Your task to perform on an android device: change your default location settings in chrome Image 0: 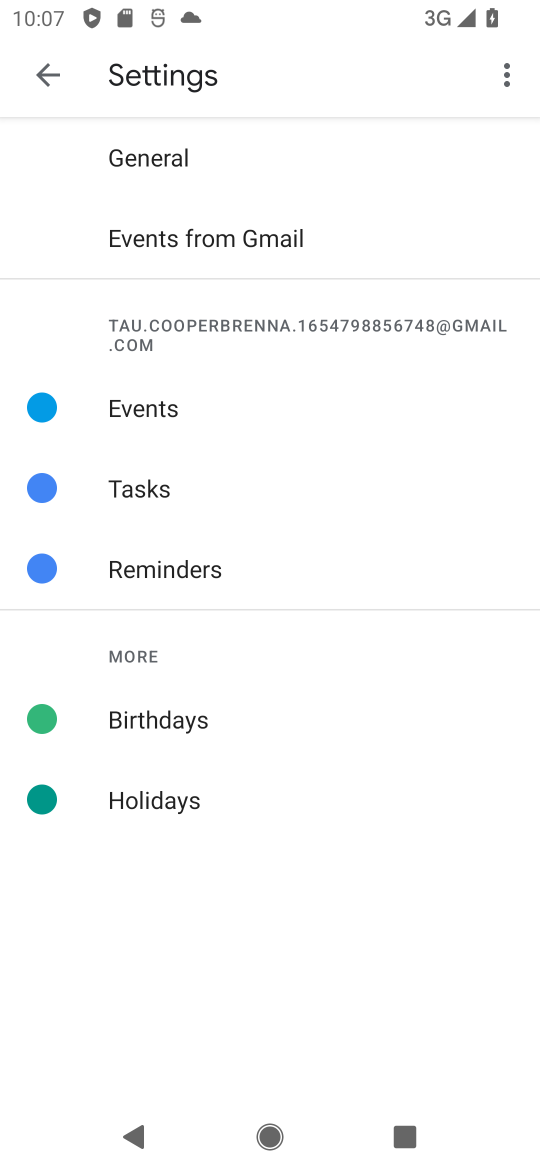
Step 0: press home button
Your task to perform on an android device: change your default location settings in chrome Image 1: 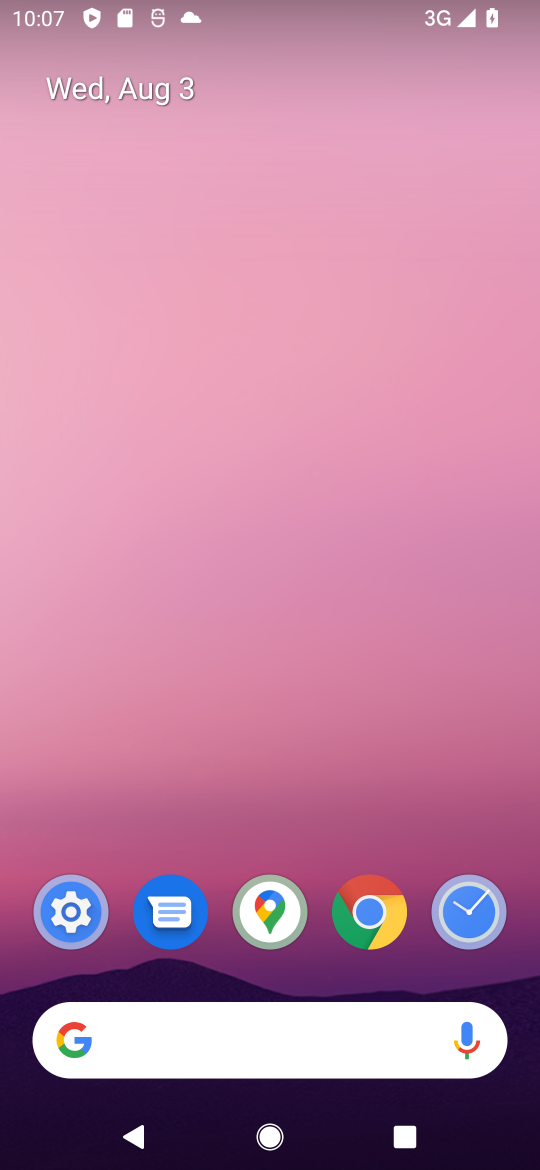
Step 1: drag from (323, 550) to (393, 36)
Your task to perform on an android device: change your default location settings in chrome Image 2: 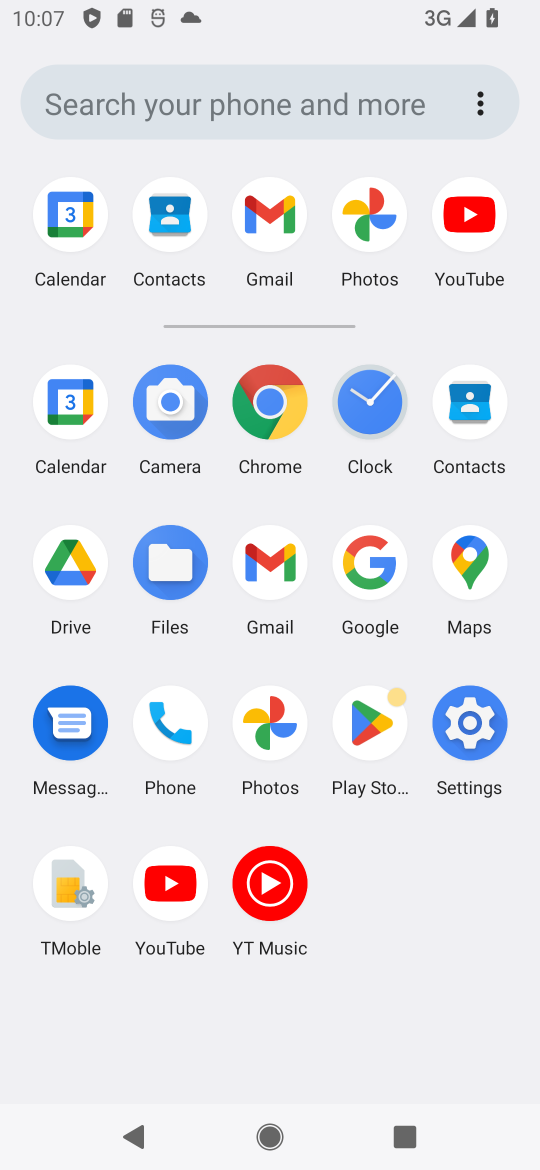
Step 2: click (262, 409)
Your task to perform on an android device: change your default location settings in chrome Image 3: 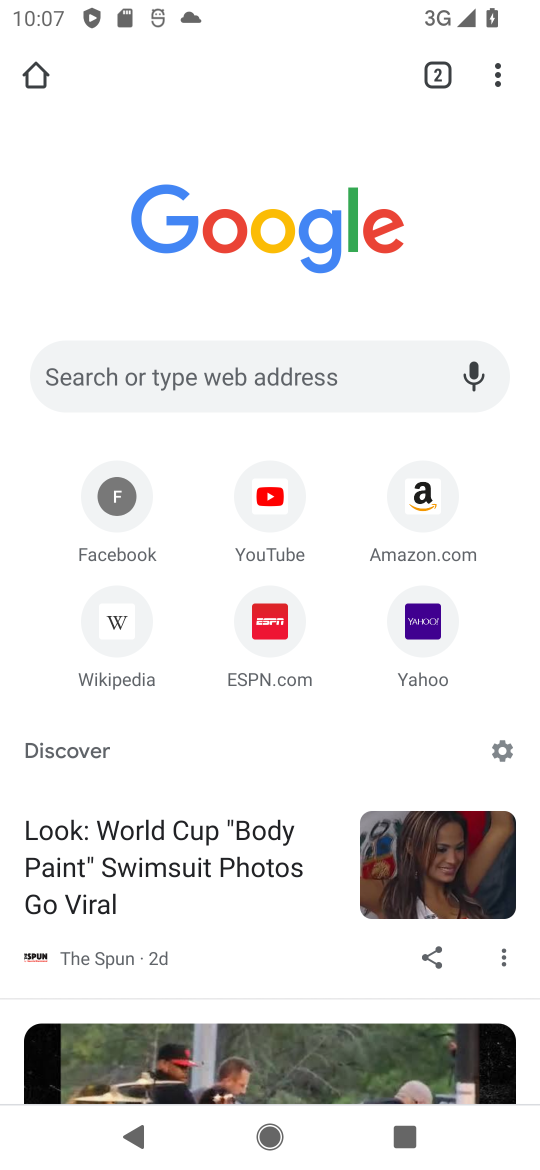
Step 3: drag from (517, 79) to (238, 777)
Your task to perform on an android device: change your default location settings in chrome Image 4: 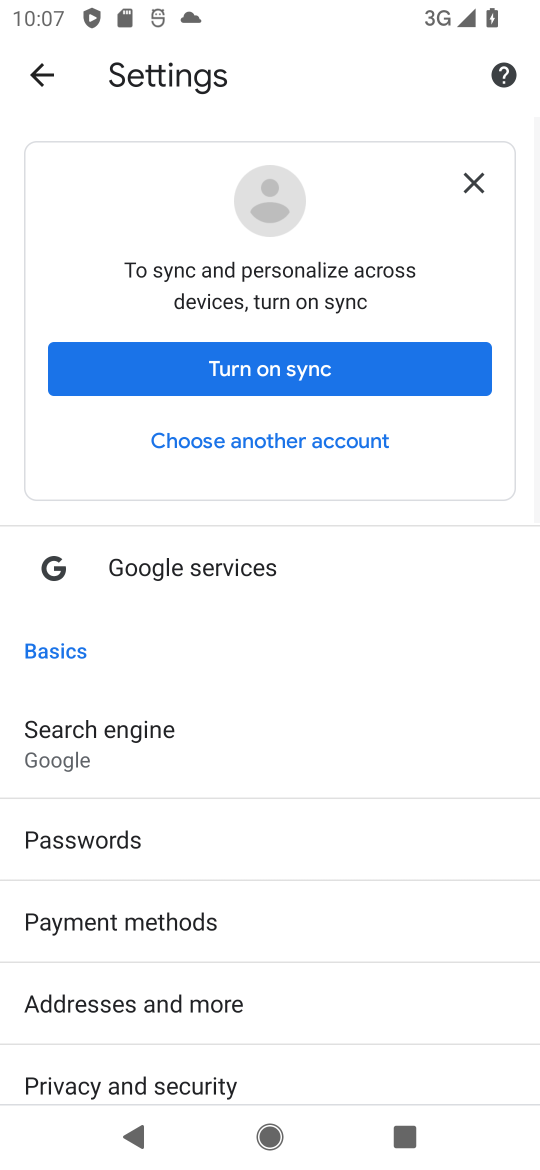
Step 4: drag from (170, 874) to (283, 242)
Your task to perform on an android device: change your default location settings in chrome Image 5: 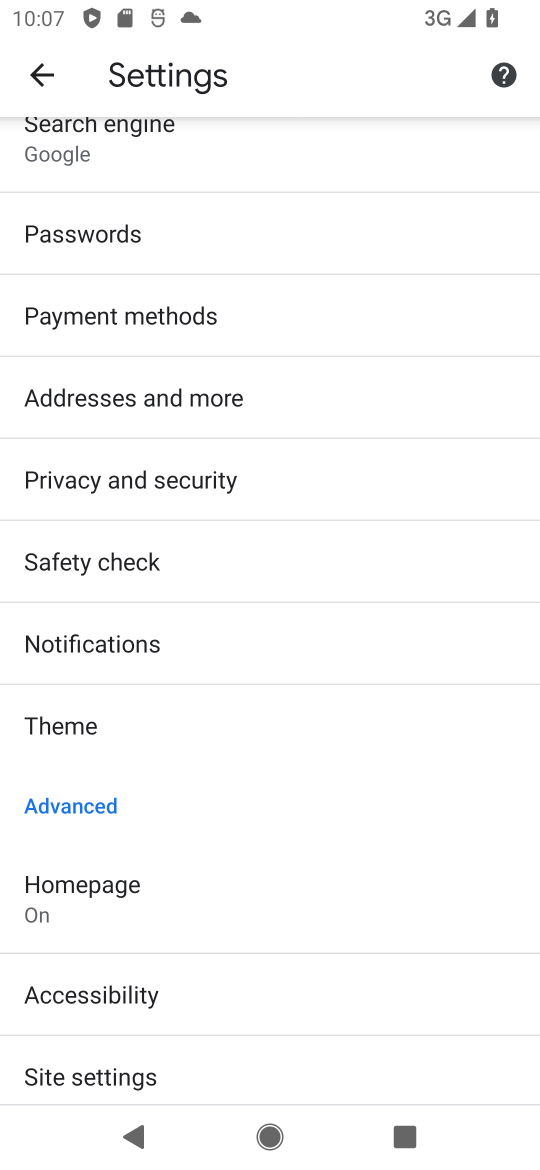
Step 5: drag from (122, 941) to (241, 252)
Your task to perform on an android device: change your default location settings in chrome Image 6: 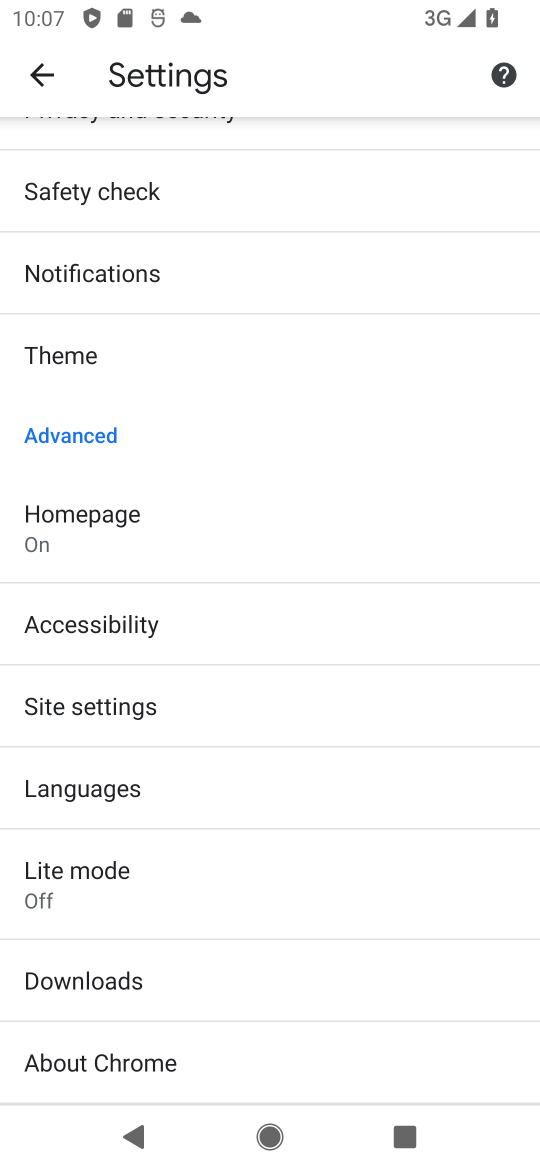
Step 6: drag from (121, 913) to (196, 344)
Your task to perform on an android device: change your default location settings in chrome Image 7: 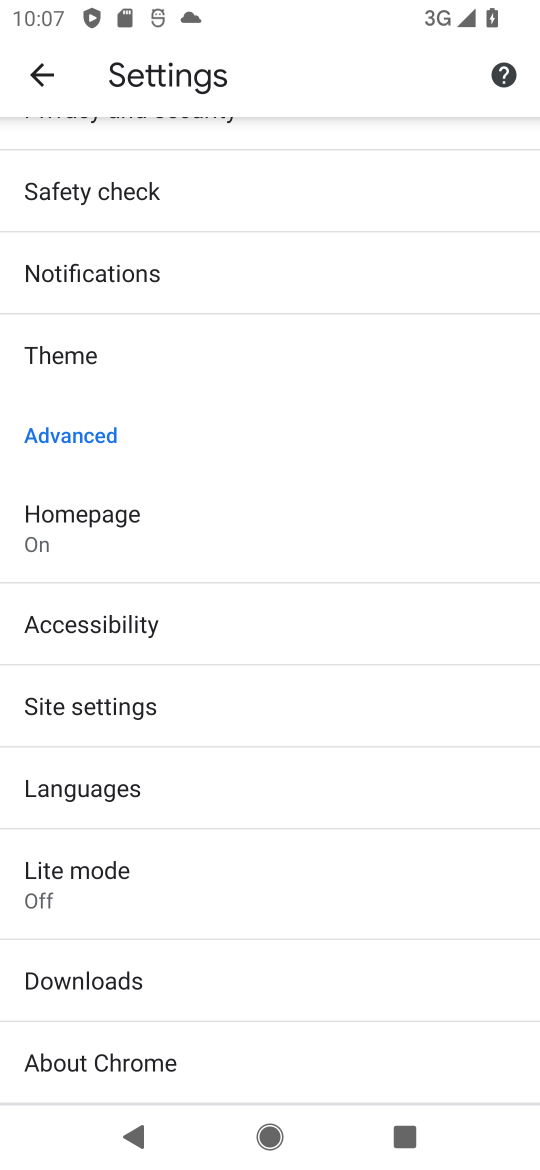
Step 7: drag from (156, 958) to (261, 389)
Your task to perform on an android device: change your default location settings in chrome Image 8: 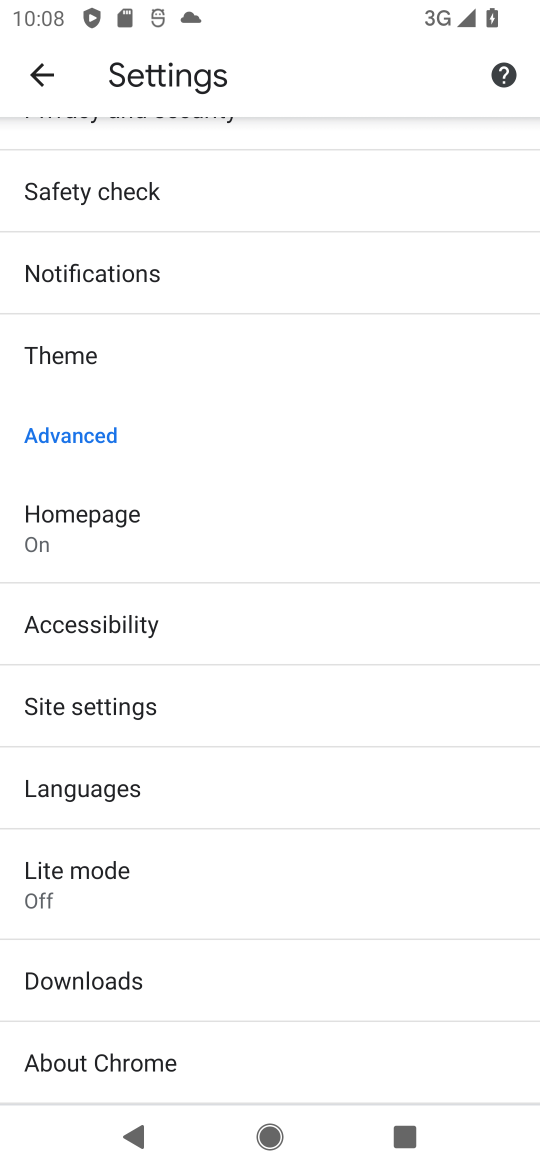
Step 8: drag from (231, 913) to (355, 366)
Your task to perform on an android device: change your default location settings in chrome Image 9: 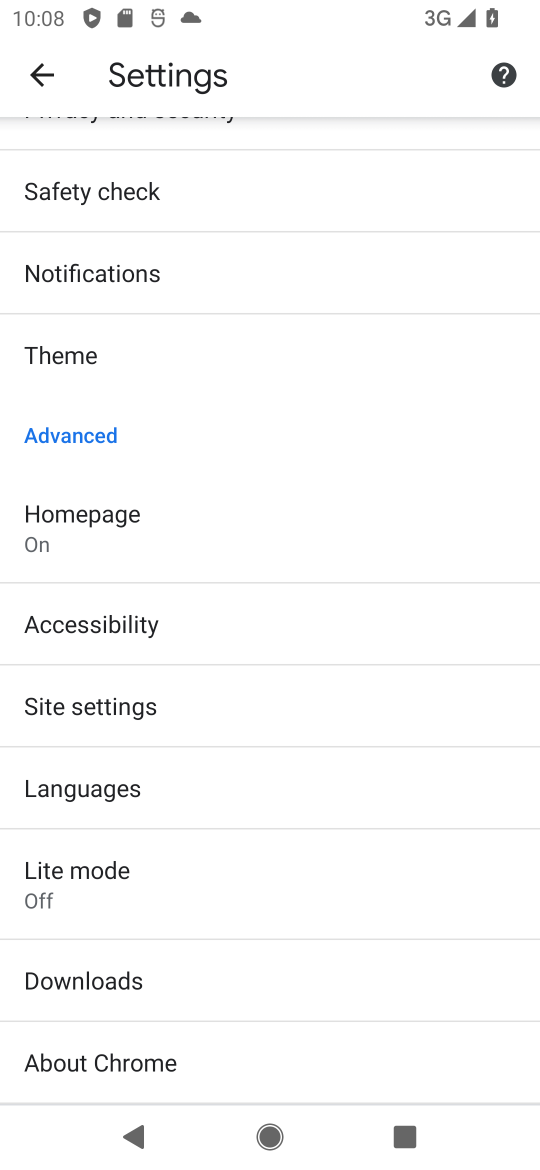
Step 9: drag from (353, 371) to (168, 915)
Your task to perform on an android device: change your default location settings in chrome Image 10: 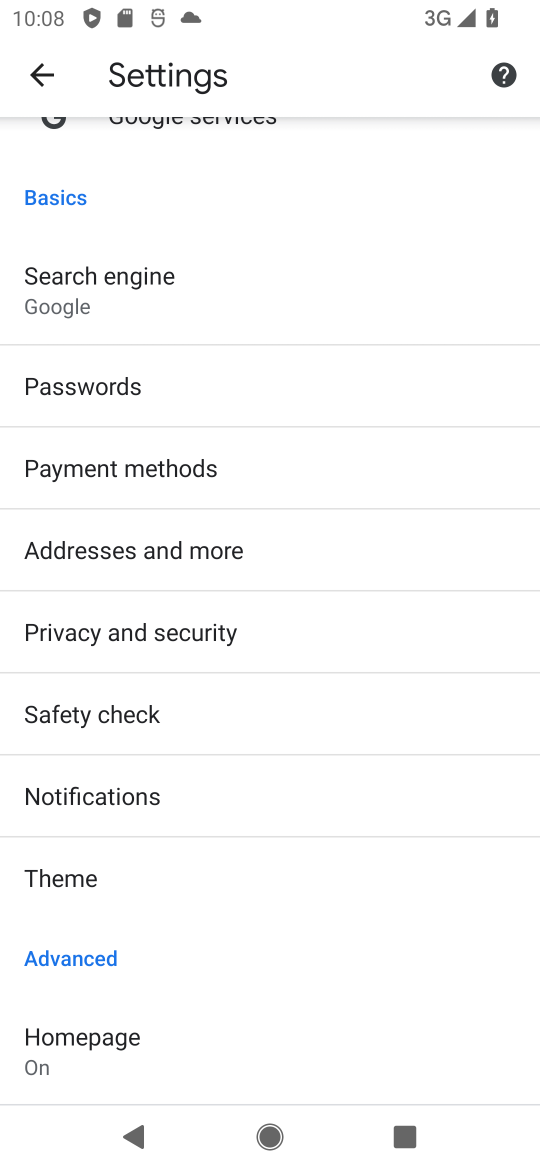
Step 10: drag from (247, 427) to (152, 963)
Your task to perform on an android device: change your default location settings in chrome Image 11: 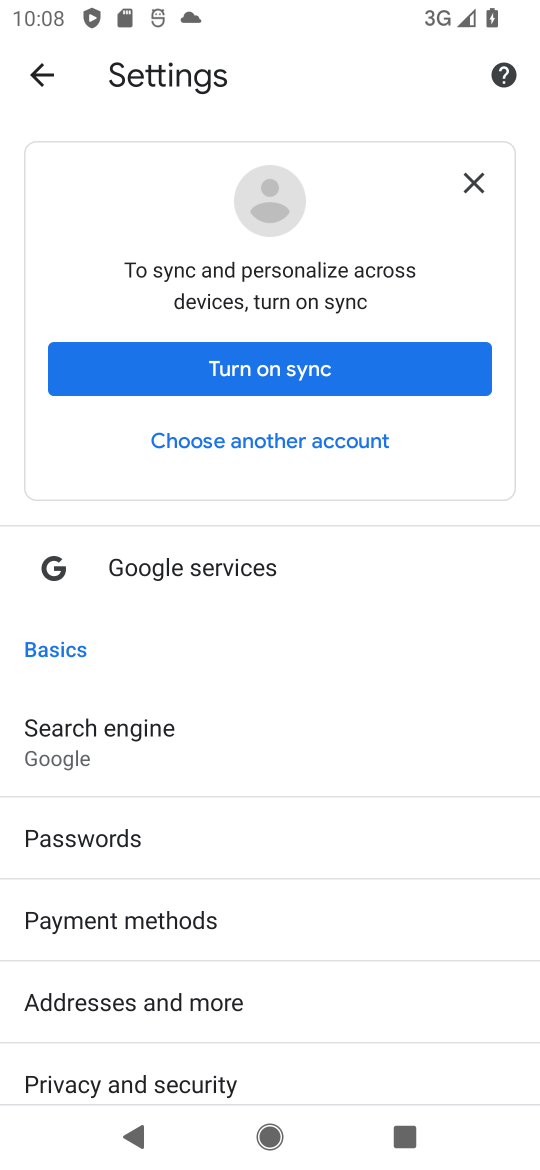
Step 11: drag from (181, 1040) to (176, 590)
Your task to perform on an android device: change your default location settings in chrome Image 12: 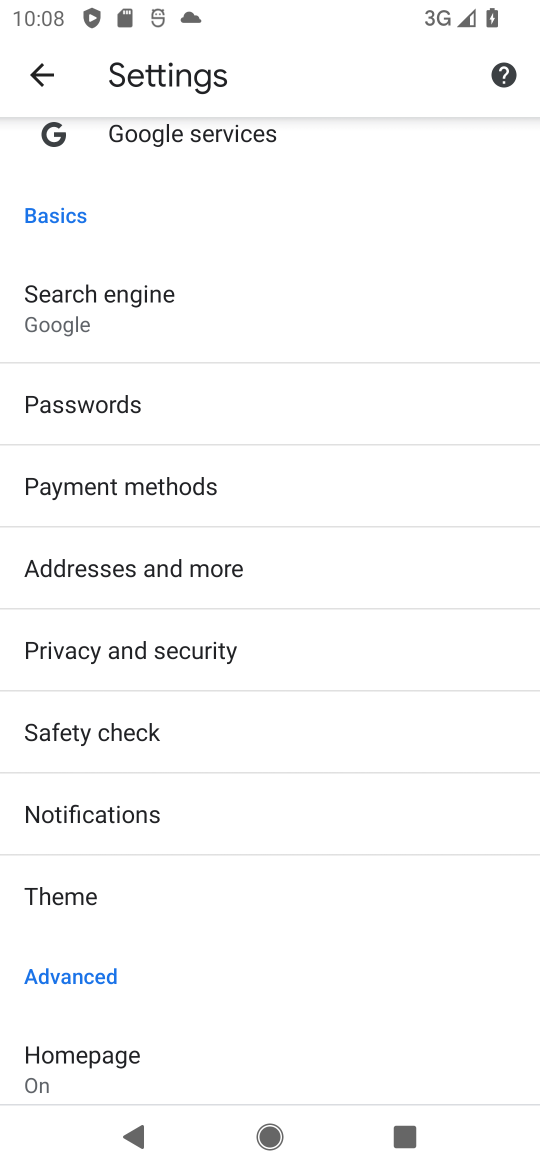
Step 12: drag from (185, 828) to (193, 570)
Your task to perform on an android device: change your default location settings in chrome Image 13: 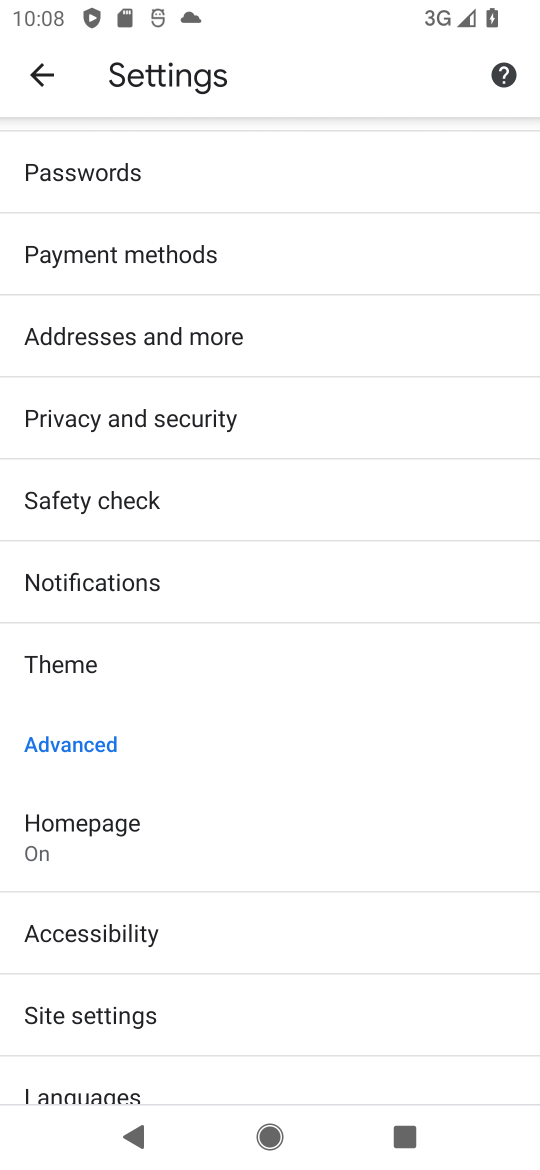
Step 13: drag from (157, 813) to (148, 448)
Your task to perform on an android device: change your default location settings in chrome Image 14: 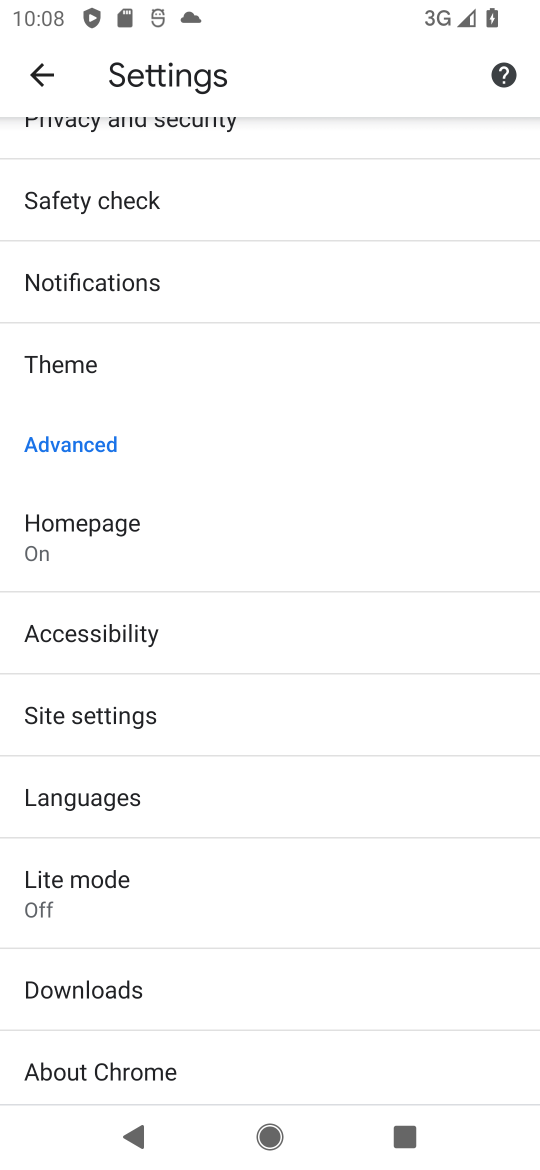
Step 14: click (119, 723)
Your task to perform on an android device: change your default location settings in chrome Image 15: 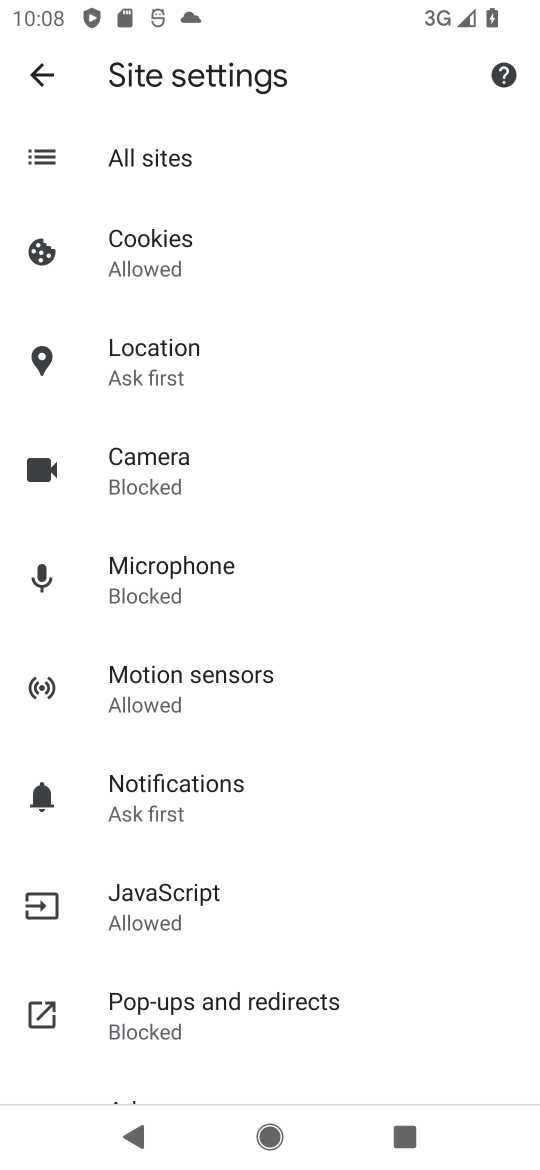
Step 15: click (129, 380)
Your task to perform on an android device: change your default location settings in chrome Image 16: 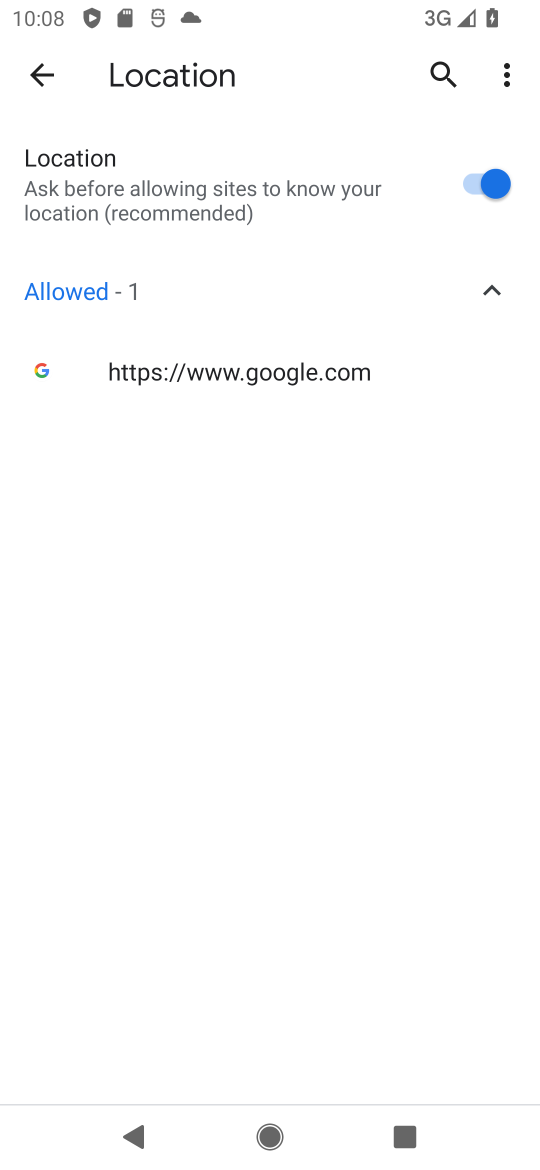
Step 16: click (475, 197)
Your task to perform on an android device: change your default location settings in chrome Image 17: 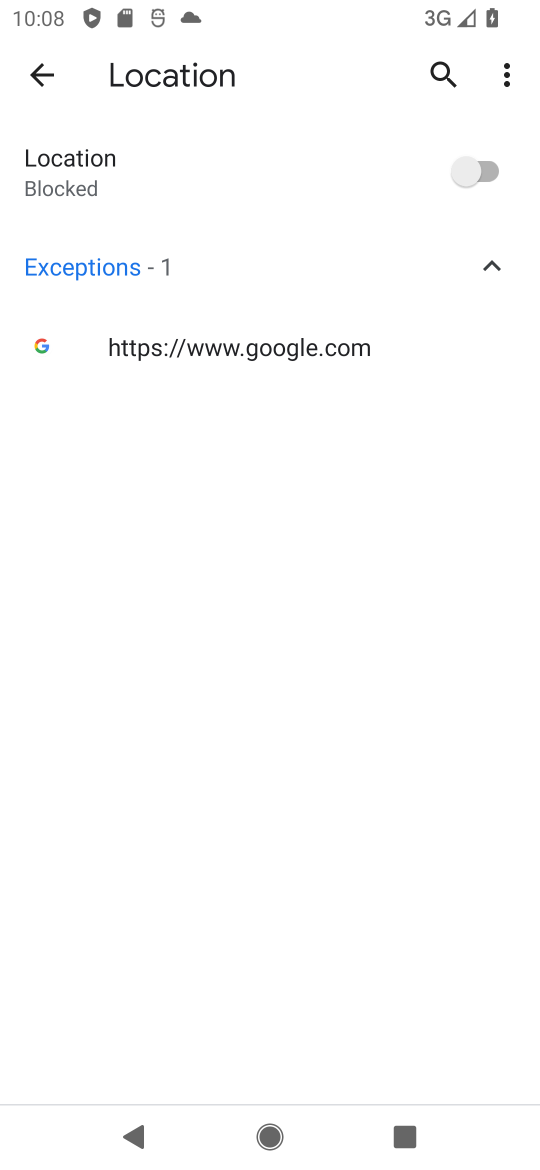
Step 17: task complete